Your task to perform on an android device: make emails show in primary in the gmail app Image 0: 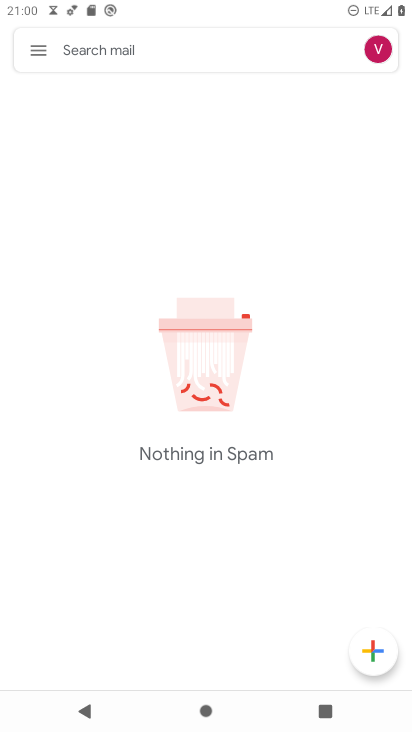
Step 0: press home button
Your task to perform on an android device: make emails show in primary in the gmail app Image 1: 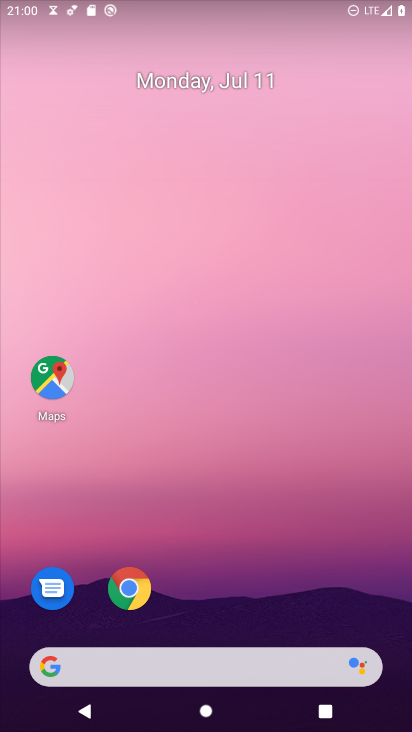
Step 1: drag from (193, 629) to (277, 17)
Your task to perform on an android device: make emails show in primary in the gmail app Image 2: 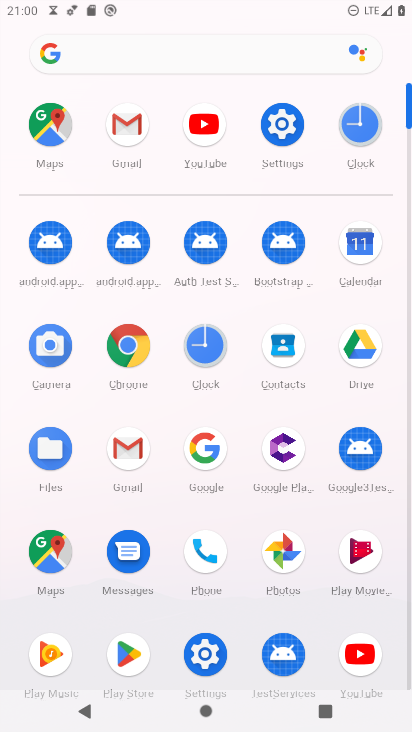
Step 2: click (121, 127)
Your task to perform on an android device: make emails show in primary in the gmail app Image 3: 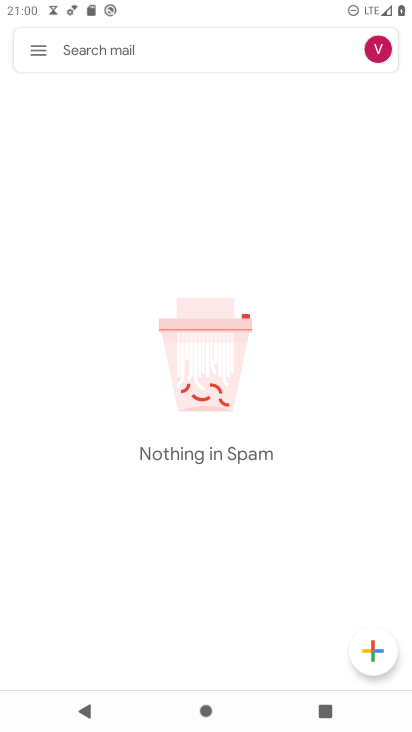
Step 3: click (42, 51)
Your task to perform on an android device: make emails show in primary in the gmail app Image 4: 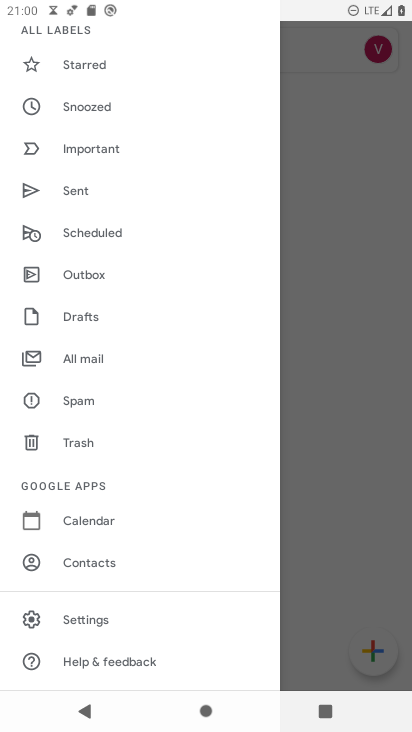
Step 4: click (75, 618)
Your task to perform on an android device: make emails show in primary in the gmail app Image 5: 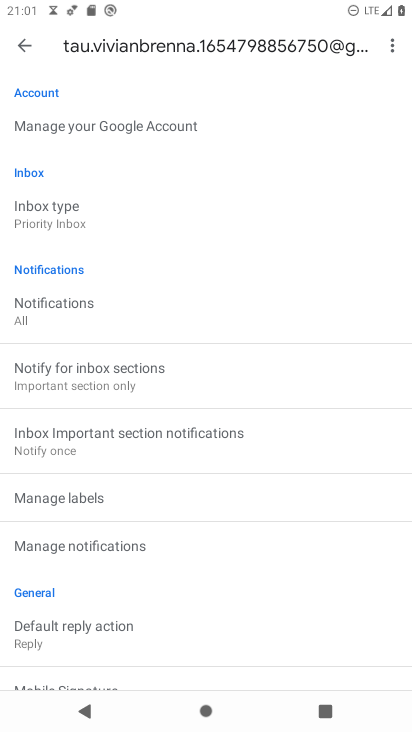
Step 5: task complete